Your task to perform on an android device: turn on airplane mode Image 0: 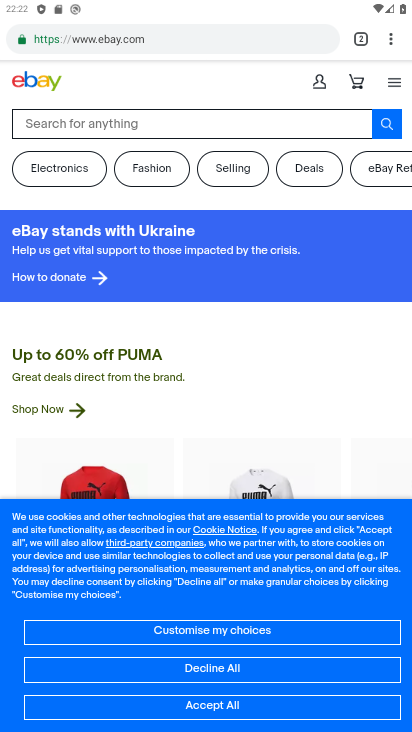
Step 0: drag from (304, 623) to (308, 243)
Your task to perform on an android device: turn on airplane mode Image 1: 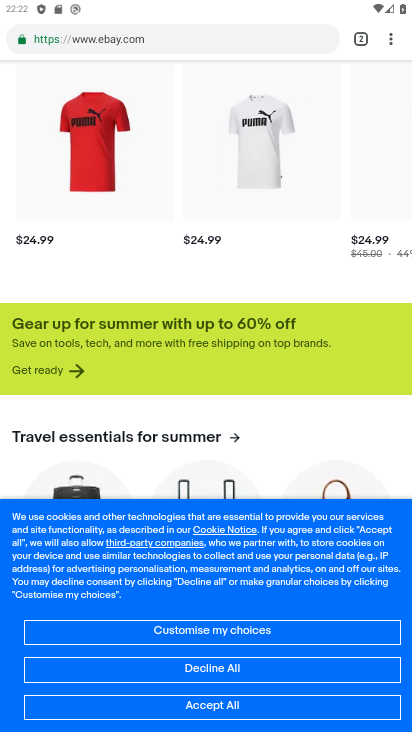
Step 1: press home button
Your task to perform on an android device: turn on airplane mode Image 2: 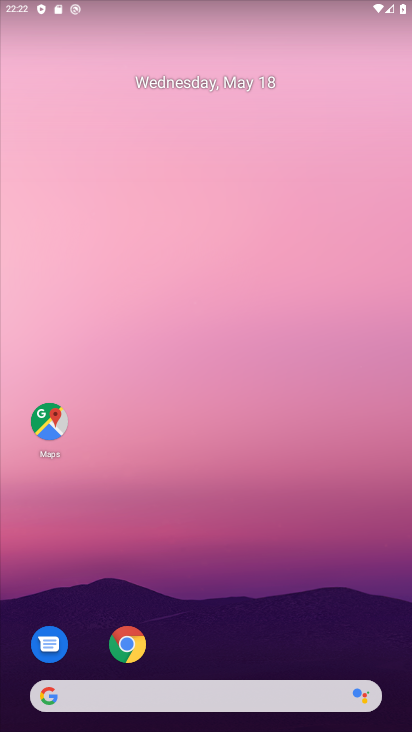
Step 2: drag from (258, 618) to (273, 142)
Your task to perform on an android device: turn on airplane mode Image 3: 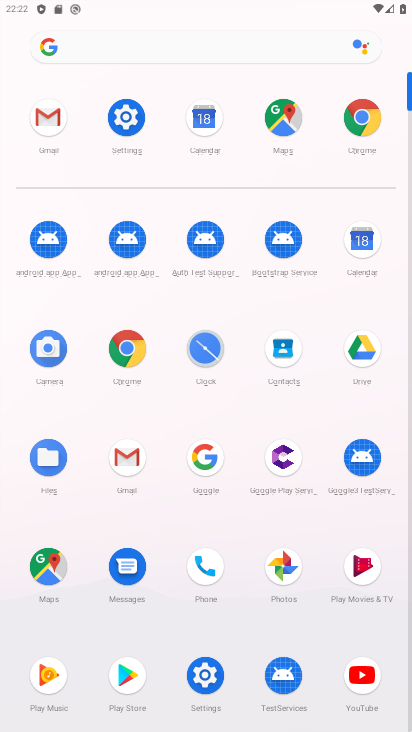
Step 3: click (134, 103)
Your task to perform on an android device: turn on airplane mode Image 4: 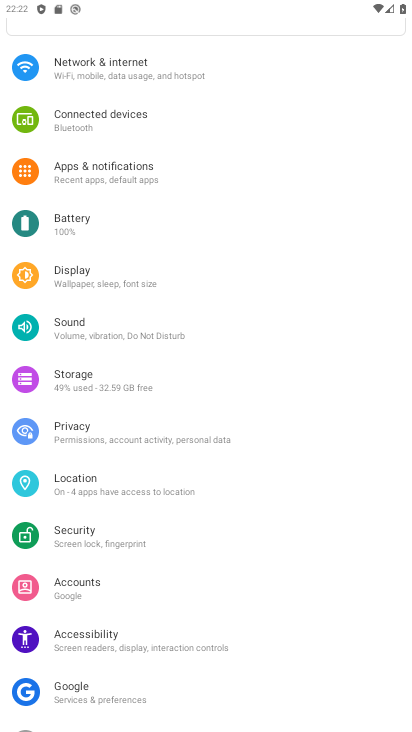
Step 4: drag from (146, 95) to (200, 681)
Your task to perform on an android device: turn on airplane mode Image 5: 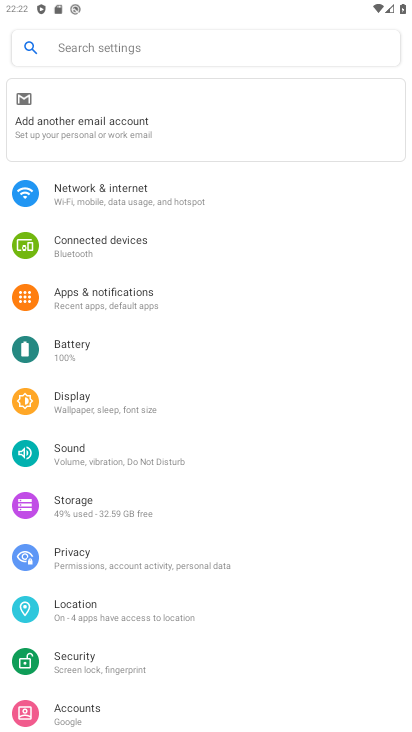
Step 5: click (154, 191)
Your task to perform on an android device: turn on airplane mode Image 6: 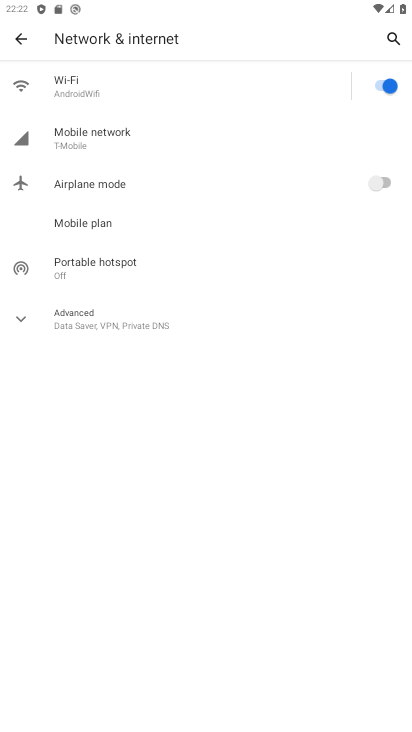
Step 6: task complete